Your task to perform on an android device: Open the stopwatch Image 0: 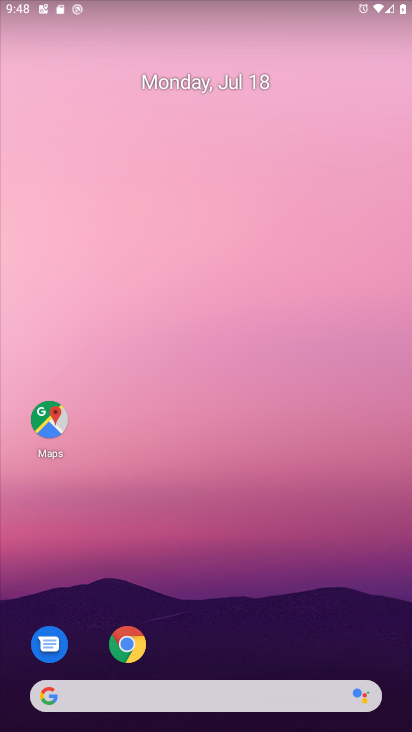
Step 0: drag from (286, 642) to (242, 44)
Your task to perform on an android device: Open the stopwatch Image 1: 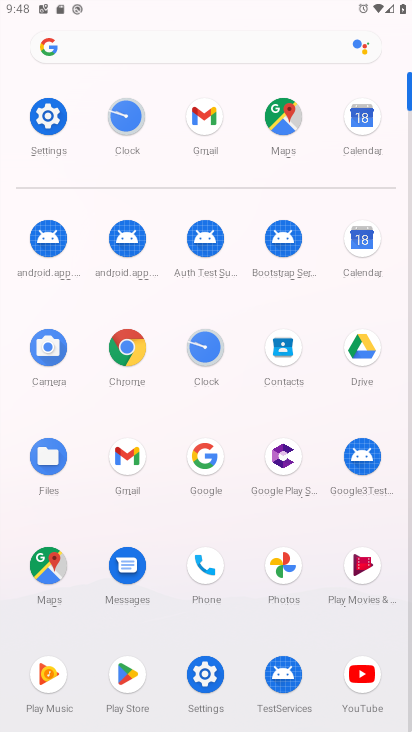
Step 1: click (128, 105)
Your task to perform on an android device: Open the stopwatch Image 2: 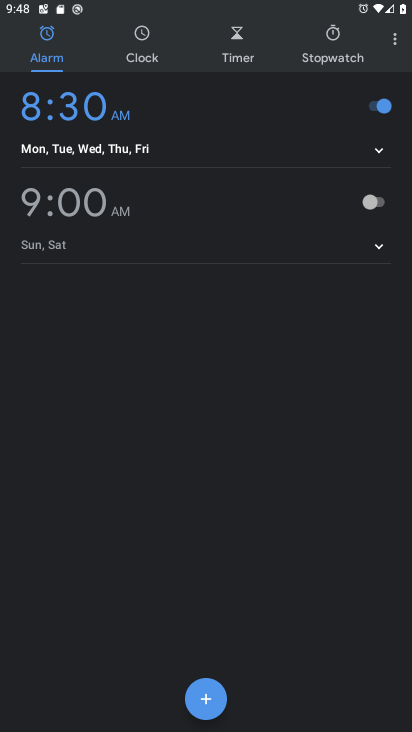
Step 2: click (313, 42)
Your task to perform on an android device: Open the stopwatch Image 3: 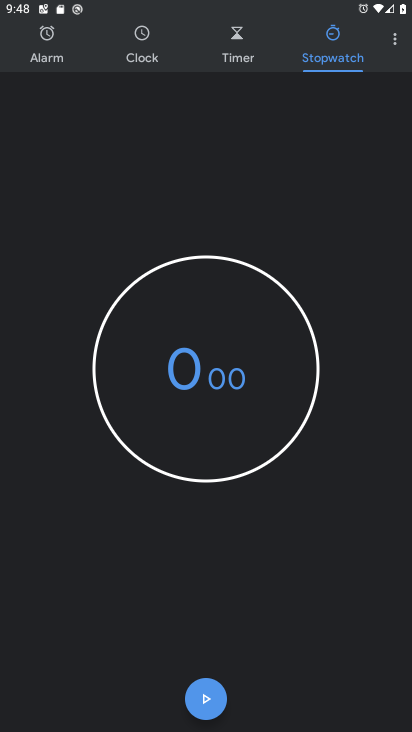
Step 3: task complete